Your task to perform on an android device: turn smart compose on in the gmail app Image 0: 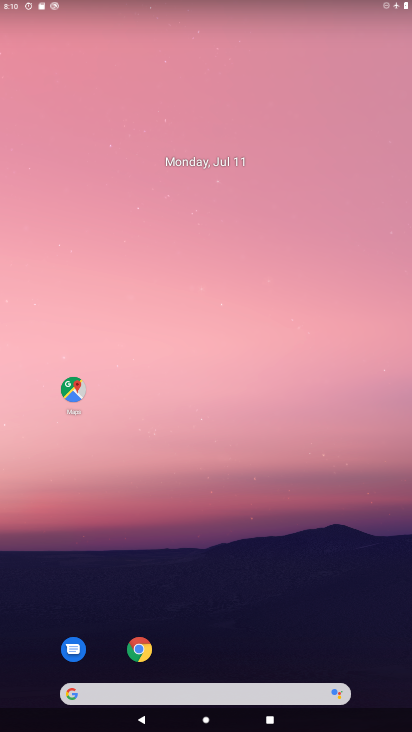
Step 0: drag from (222, 692) to (279, 20)
Your task to perform on an android device: turn smart compose on in the gmail app Image 1: 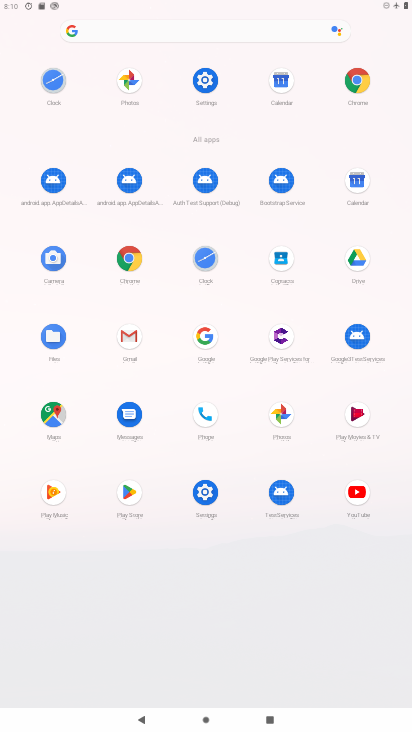
Step 1: click (127, 334)
Your task to perform on an android device: turn smart compose on in the gmail app Image 2: 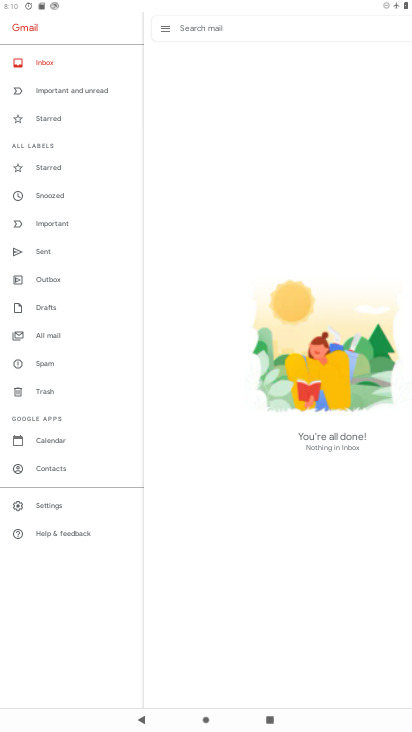
Step 2: click (46, 506)
Your task to perform on an android device: turn smart compose on in the gmail app Image 3: 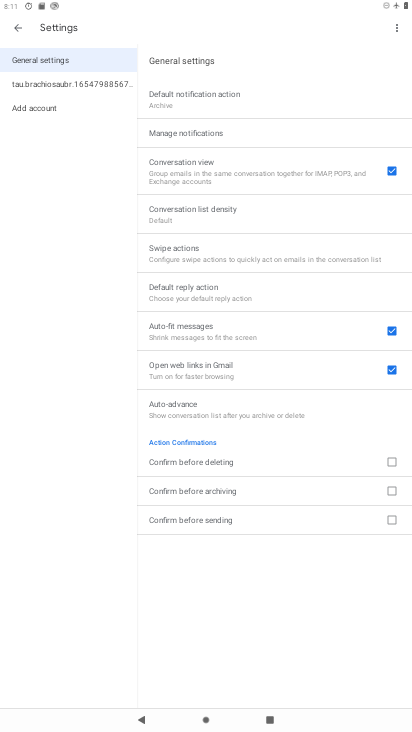
Step 3: click (118, 79)
Your task to perform on an android device: turn smart compose on in the gmail app Image 4: 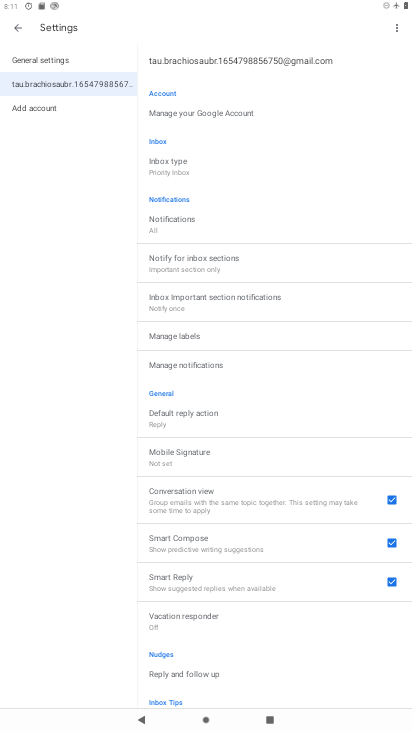
Step 4: task complete